Your task to perform on an android device: Go to Yahoo.com Image 0: 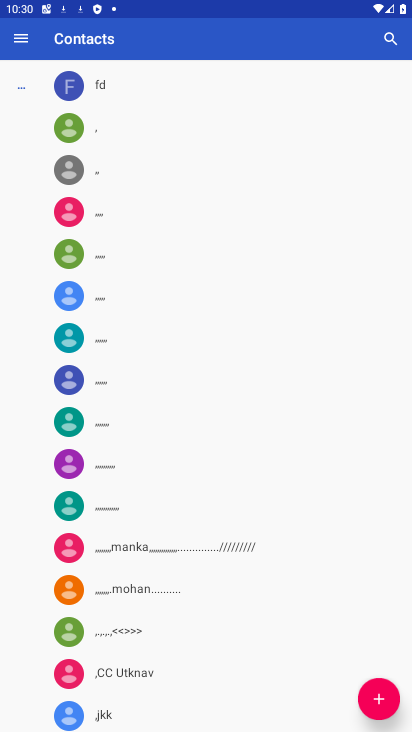
Step 0: press home button
Your task to perform on an android device: Go to Yahoo.com Image 1: 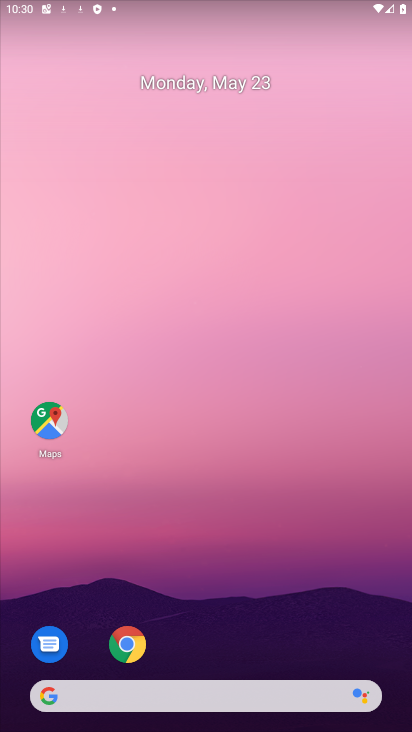
Step 1: drag from (233, 720) to (213, 50)
Your task to perform on an android device: Go to Yahoo.com Image 2: 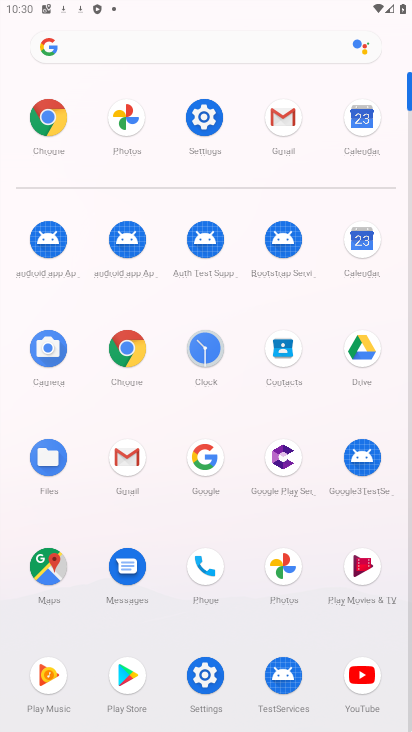
Step 2: click (59, 125)
Your task to perform on an android device: Go to Yahoo.com Image 3: 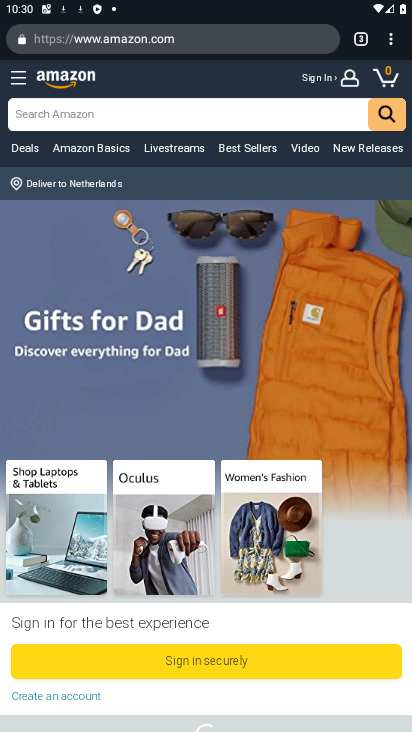
Step 3: click (363, 45)
Your task to perform on an android device: Go to Yahoo.com Image 4: 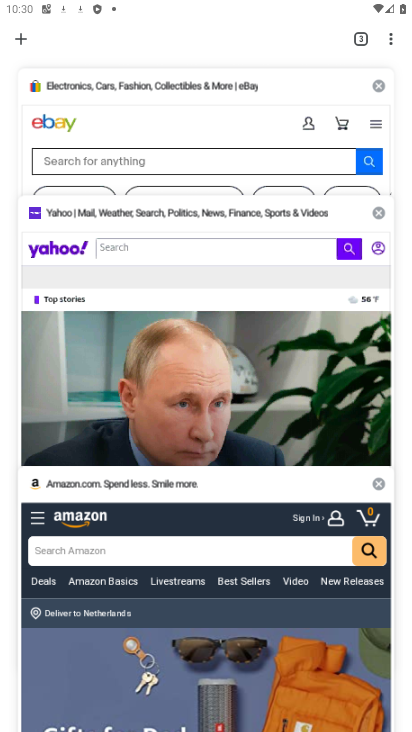
Step 4: click (23, 37)
Your task to perform on an android device: Go to Yahoo.com Image 5: 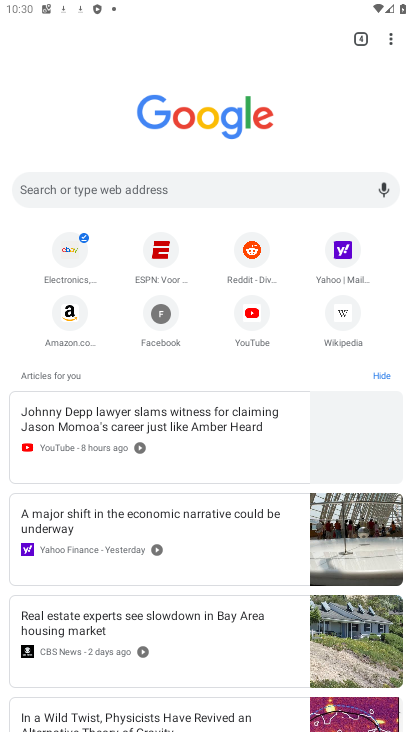
Step 5: click (348, 255)
Your task to perform on an android device: Go to Yahoo.com Image 6: 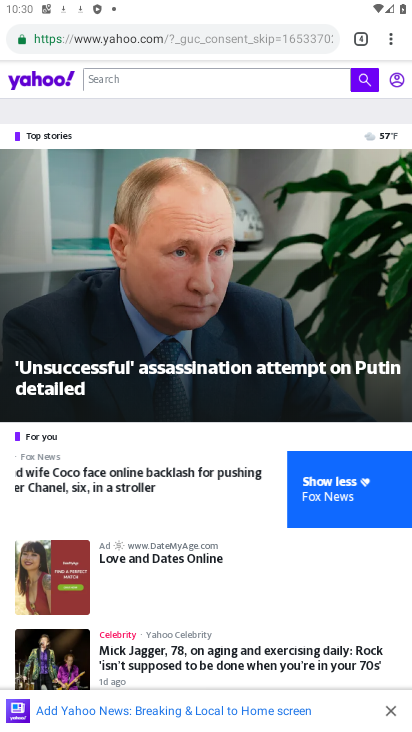
Step 6: task complete